Your task to perform on an android device: open sync settings in chrome Image 0: 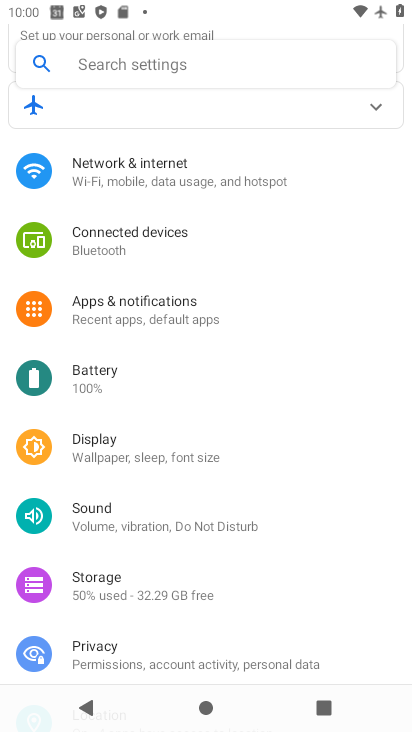
Step 0: press home button
Your task to perform on an android device: open sync settings in chrome Image 1: 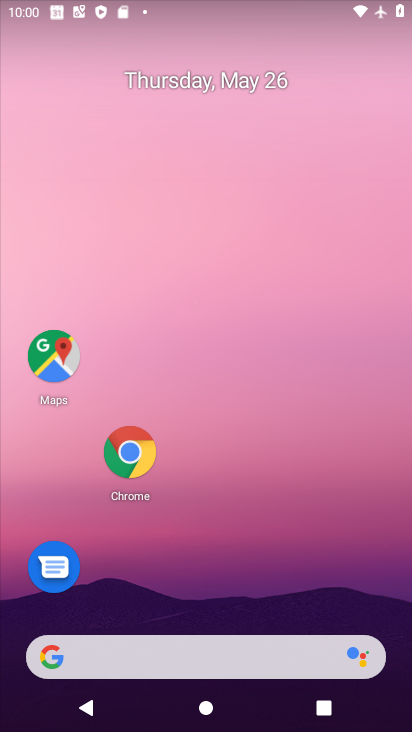
Step 1: click (133, 455)
Your task to perform on an android device: open sync settings in chrome Image 2: 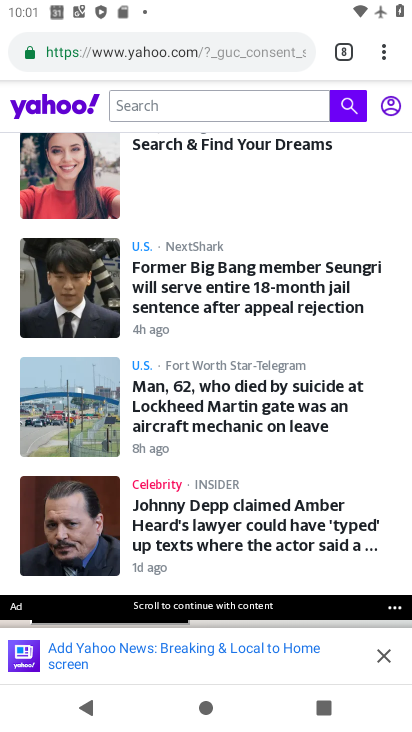
Step 2: drag from (381, 45) to (232, 604)
Your task to perform on an android device: open sync settings in chrome Image 3: 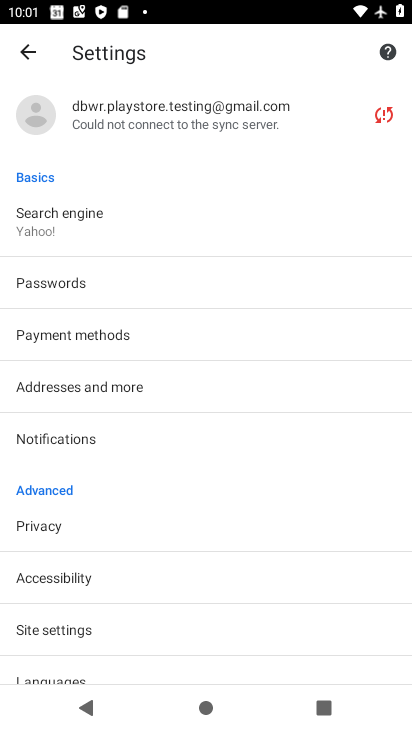
Step 3: click (231, 133)
Your task to perform on an android device: open sync settings in chrome Image 4: 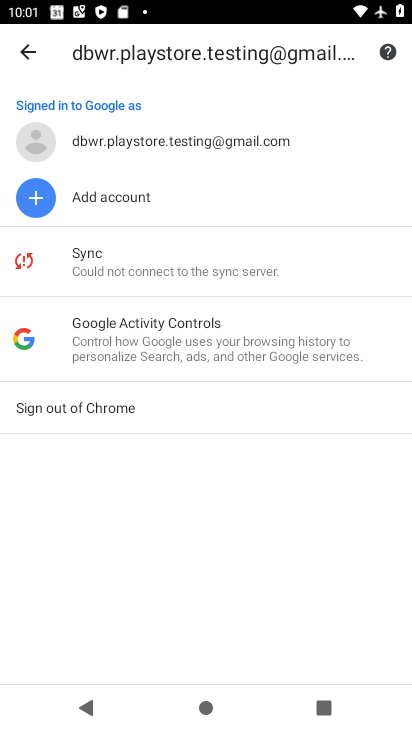
Step 4: click (186, 261)
Your task to perform on an android device: open sync settings in chrome Image 5: 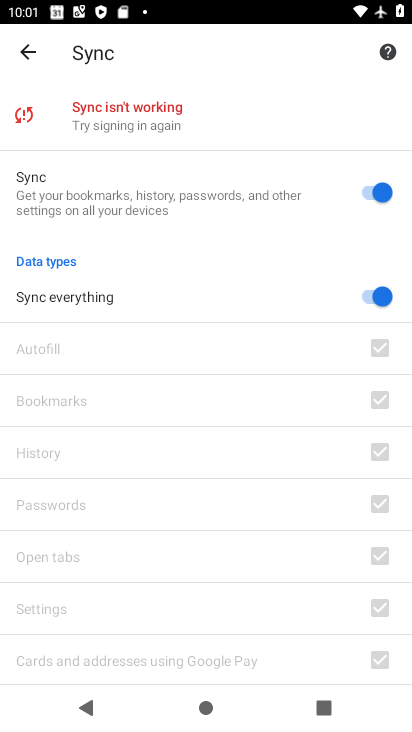
Step 5: task complete